Your task to perform on an android device: Go to Maps Image 0: 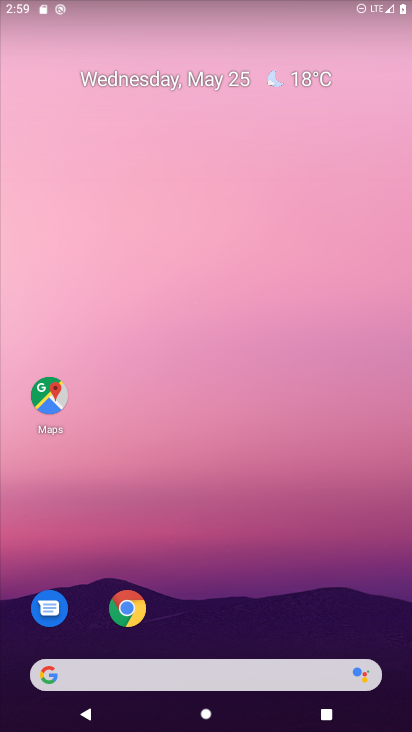
Step 0: click (48, 394)
Your task to perform on an android device: Go to Maps Image 1: 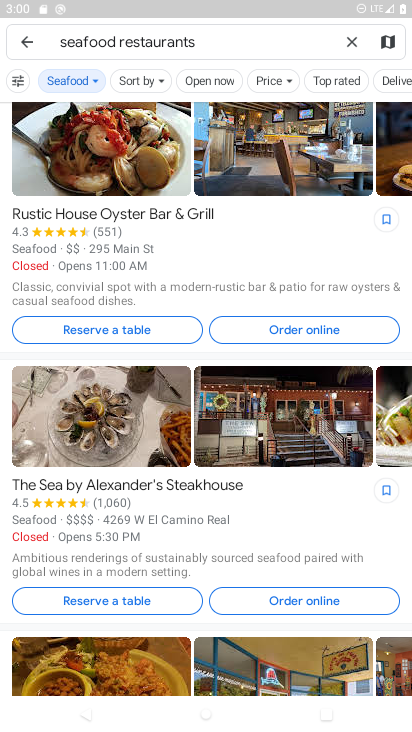
Step 1: click (352, 40)
Your task to perform on an android device: Go to Maps Image 2: 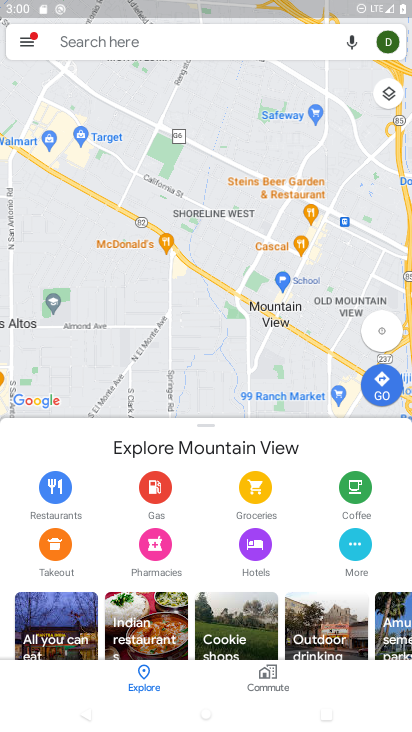
Step 2: click (180, 252)
Your task to perform on an android device: Go to Maps Image 3: 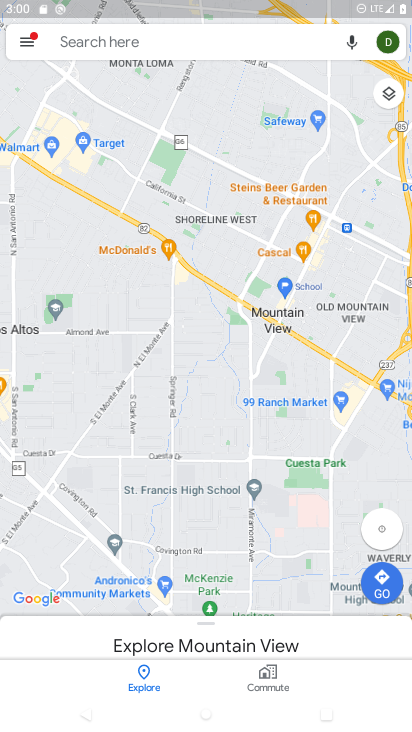
Step 3: task complete